Your task to perform on an android device: Show me recent news Image 0: 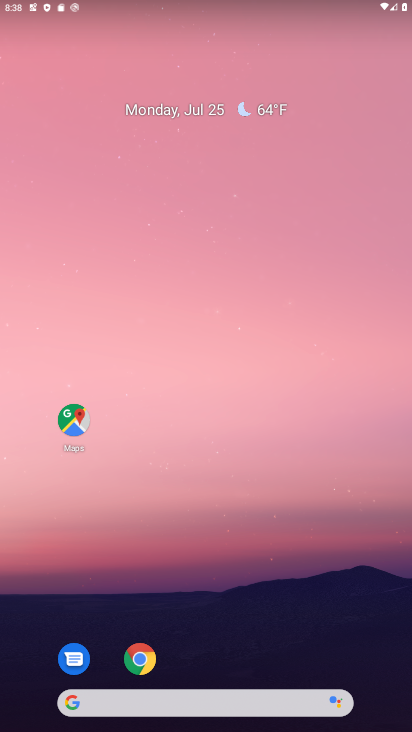
Step 0: press home button
Your task to perform on an android device: Show me recent news Image 1: 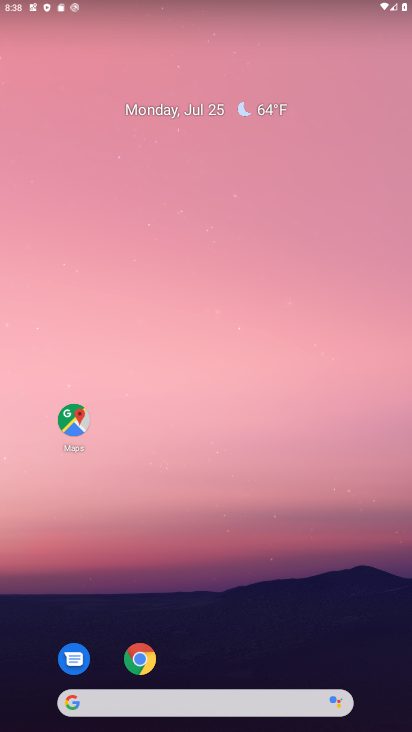
Step 1: task complete